Your task to perform on an android device: Empty the shopping cart on bestbuy.com. Add "acer nitro" to the cart on bestbuy.com, then select checkout. Image 0: 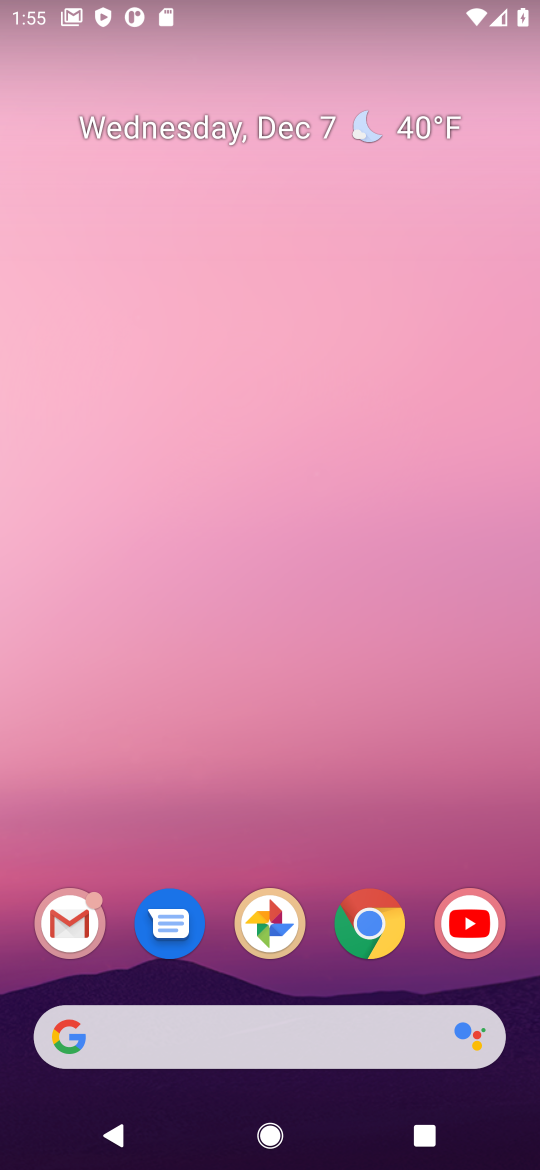
Step 0: task complete